Your task to perform on an android device: turn notification dots off Image 0: 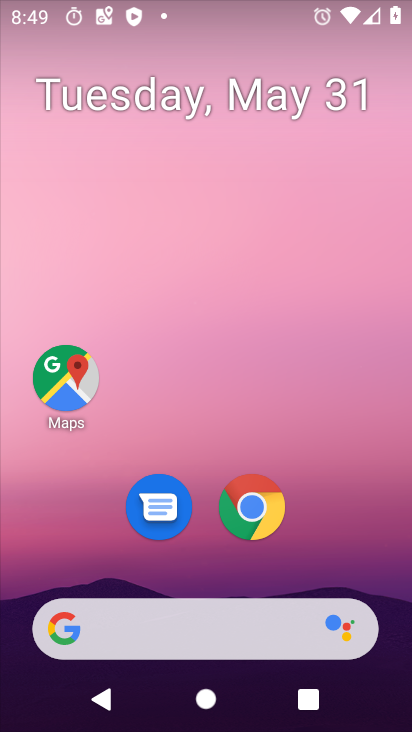
Step 0: drag from (298, 570) to (239, 8)
Your task to perform on an android device: turn notification dots off Image 1: 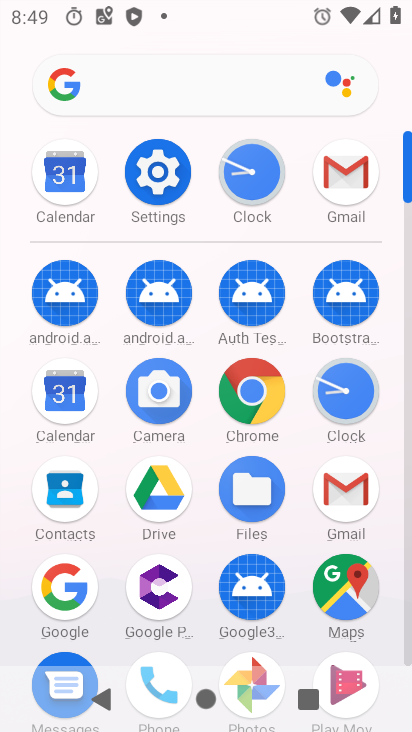
Step 1: click (149, 183)
Your task to perform on an android device: turn notification dots off Image 2: 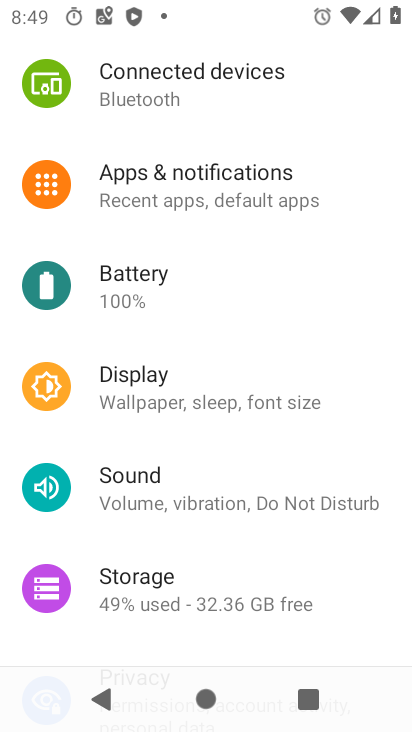
Step 2: click (175, 202)
Your task to perform on an android device: turn notification dots off Image 3: 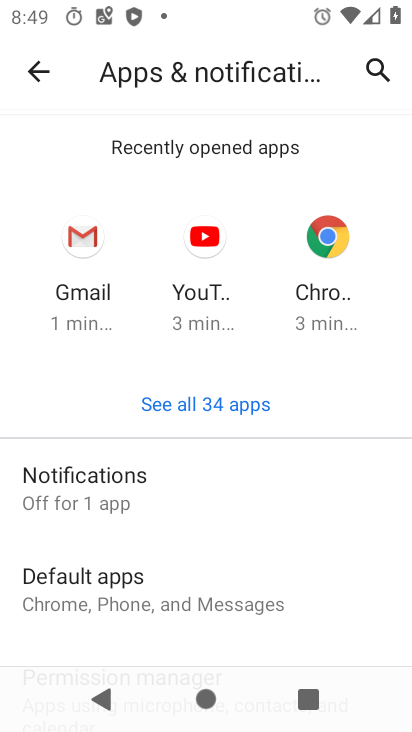
Step 3: drag from (222, 489) to (188, 119)
Your task to perform on an android device: turn notification dots off Image 4: 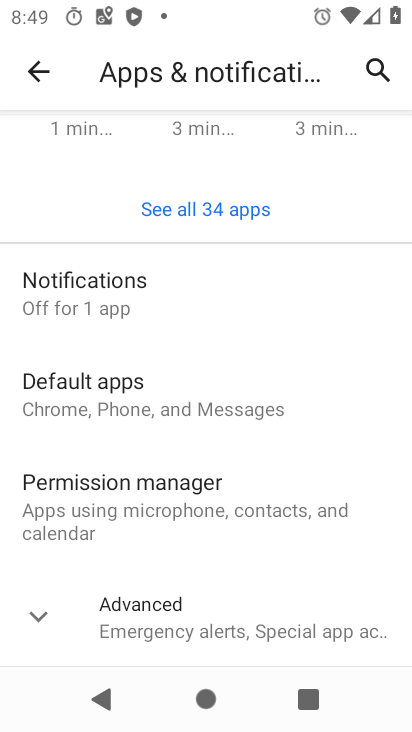
Step 4: click (61, 312)
Your task to perform on an android device: turn notification dots off Image 5: 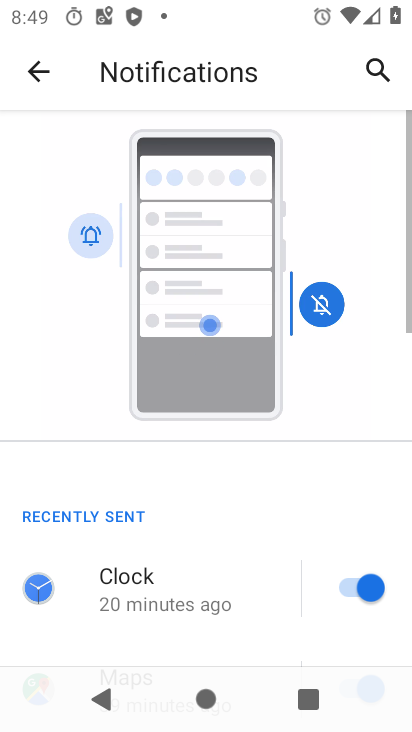
Step 5: drag from (113, 545) to (86, 53)
Your task to perform on an android device: turn notification dots off Image 6: 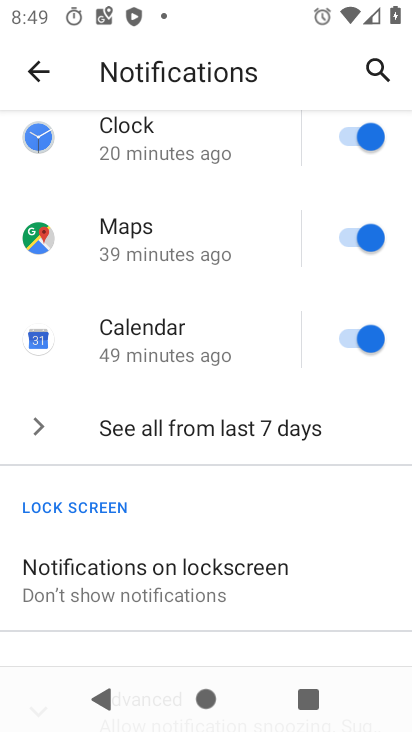
Step 6: drag from (111, 468) to (103, 53)
Your task to perform on an android device: turn notification dots off Image 7: 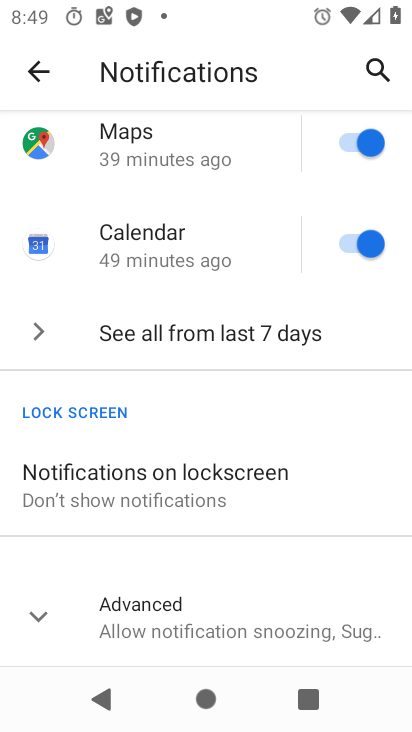
Step 7: click (35, 631)
Your task to perform on an android device: turn notification dots off Image 8: 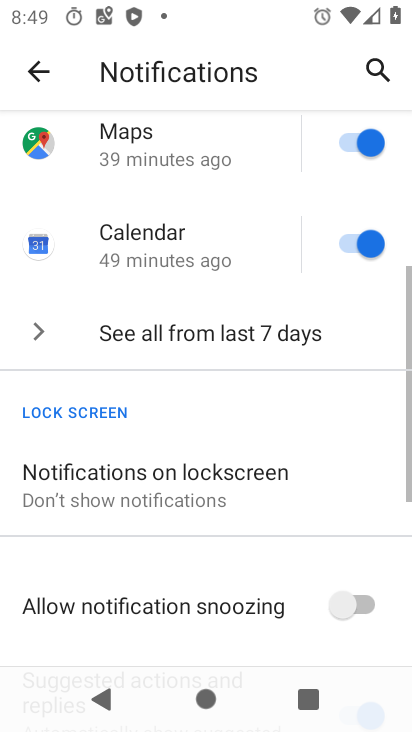
Step 8: drag from (106, 626) to (93, 182)
Your task to perform on an android device: turn notification dots off Image 9: 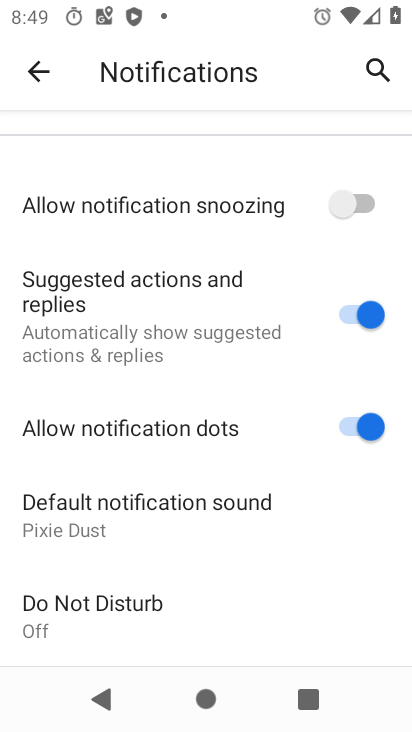
Step 9: click (365, 432)
Your task to perform on an android device: turn notification dots off Image 10: 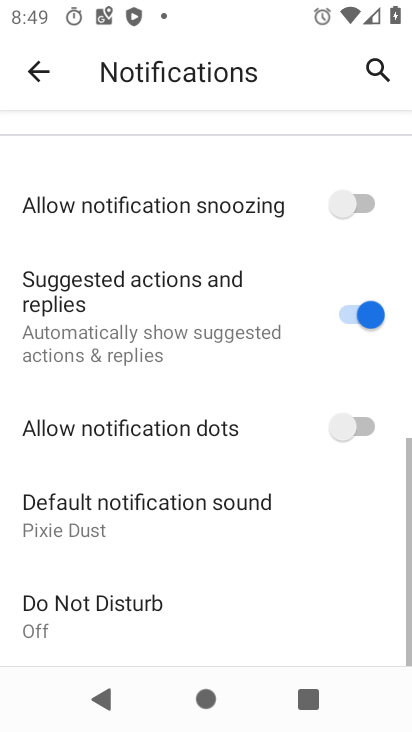
Step 10: task complete